Your task to perform on an android device: Go to Reddit.com Image 0: 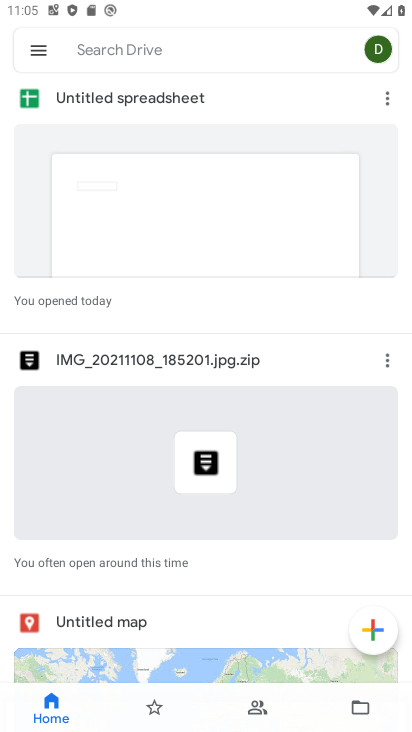
Step 0: press home button
Your task to perform on an android device: Go to Reddit.com Image 1: 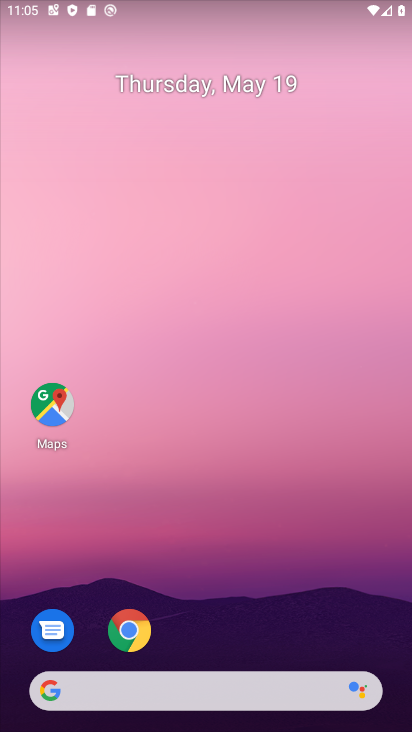
Step 1: click (129, 628)
Your task to perform on an android device: Go to Reddit.com Image 2: 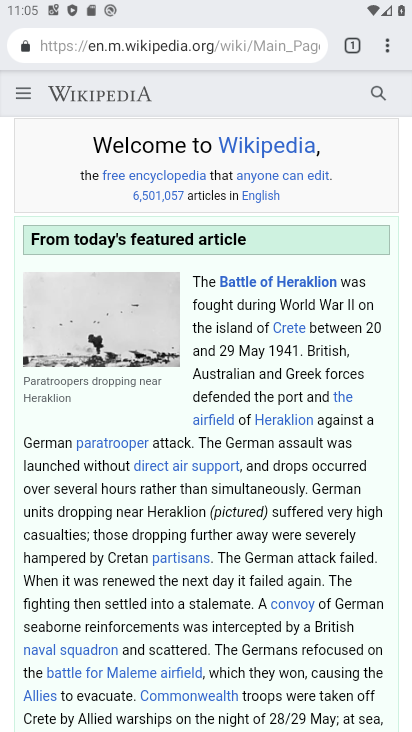
Step 2: click (244, 44)
Your task to perform on an android device: Go to Reddit.com Image 3: 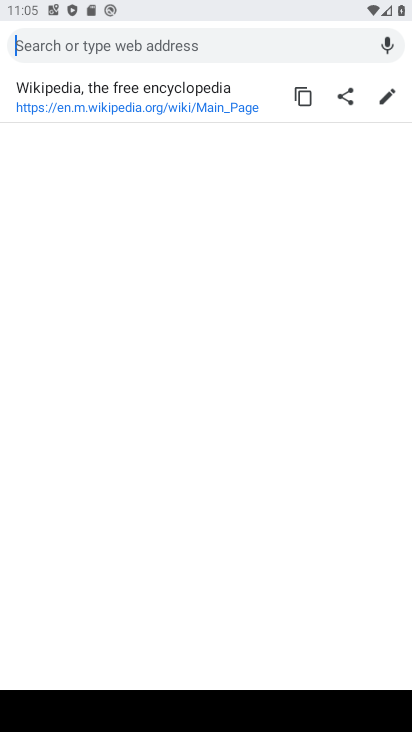
Step 3: type "Reddit.com"
Your task to perform on an android device: Go to Reddit.com Image 4: 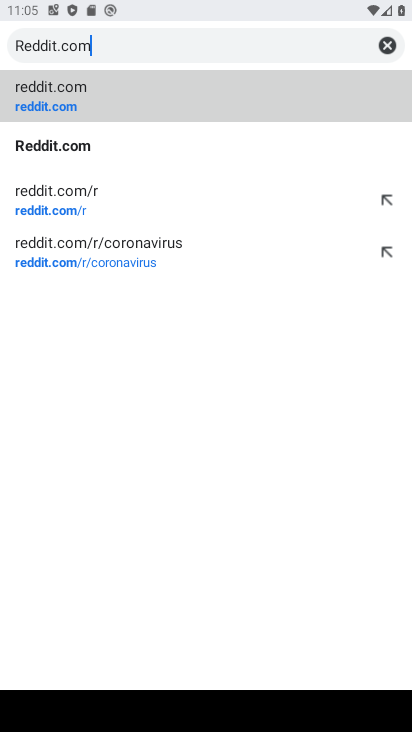
Step 4: click (78, 151)
Your task to perform on an android device: Go to Reddit.com Image 5: 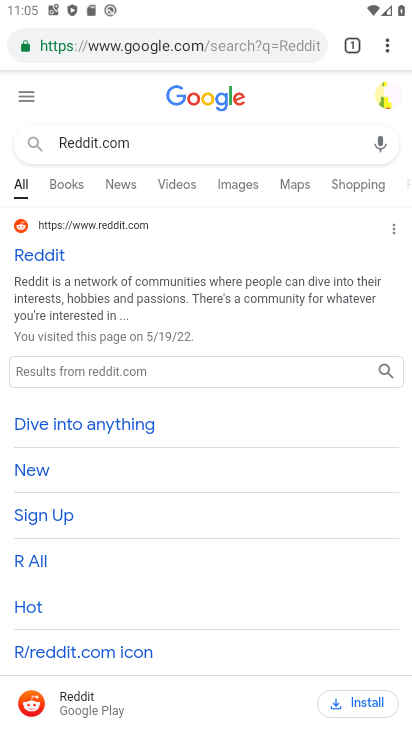
Step 5: click (43, 259)
Your task to perform on an android device: Go to Reddit.com Image 6: 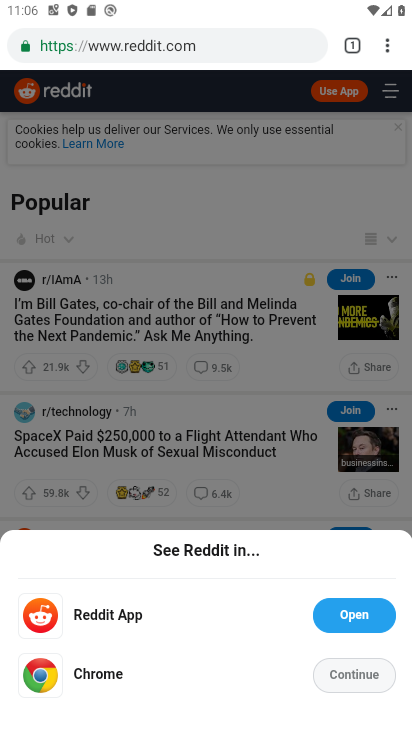
Step 6: click (347, 677)
Your task to perform on an android device: Go to Reddit.com Image 7: 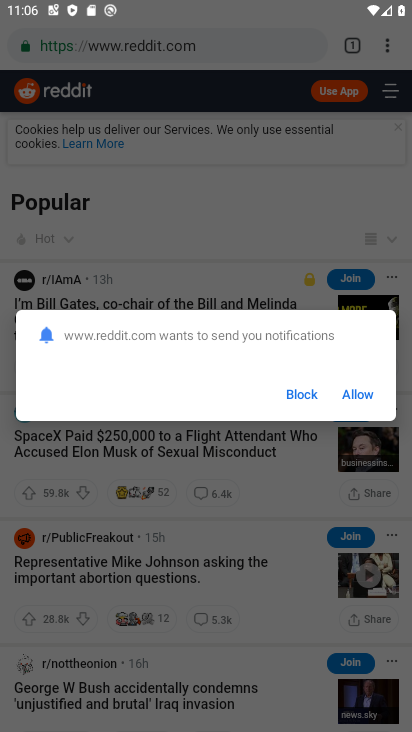
Step 7: click (355, 401)
Your task to perform on an android device: Go to Reddit.com Image 8: 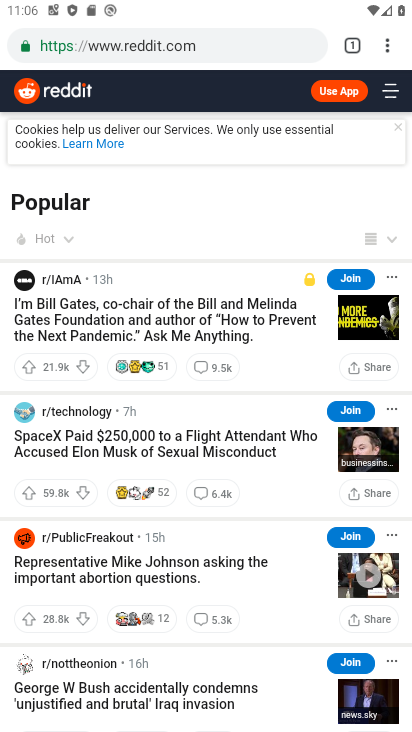
Step 8: task complete